Your task to perform on an android device: uninstall "Paramount+ | Peak Streaming" Image 0: 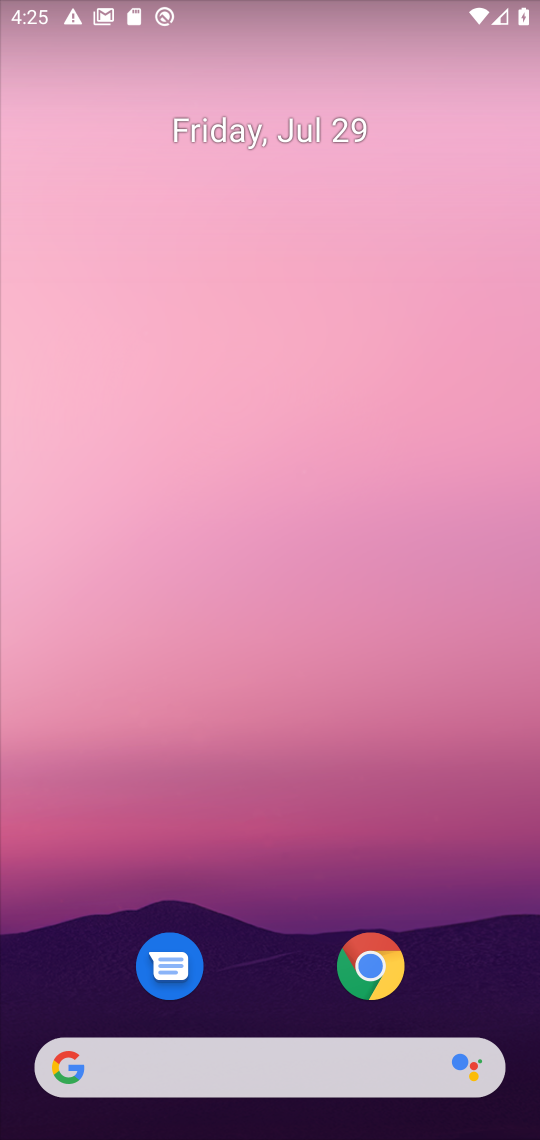
Step 0: drag from (258, 826) to (373, 11)
Your task to perform on an android device: uninstall "Paramount+ | Peak Streaming" Image 1: 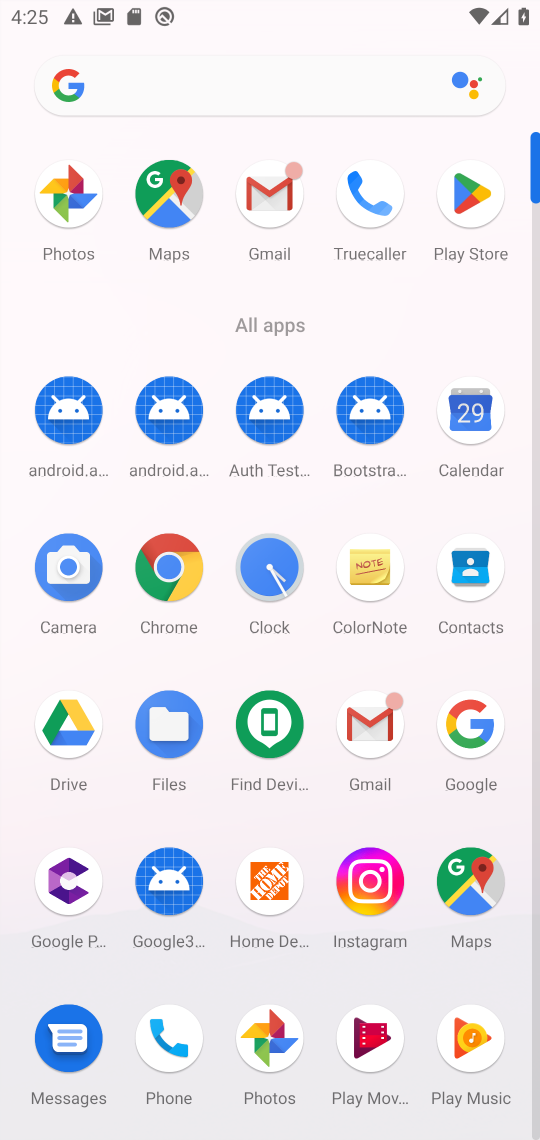
Step 1: click (473, 189)
Your task to perform on an android device: uninstall "Paramount+ | Peak Streaming" Image 2: 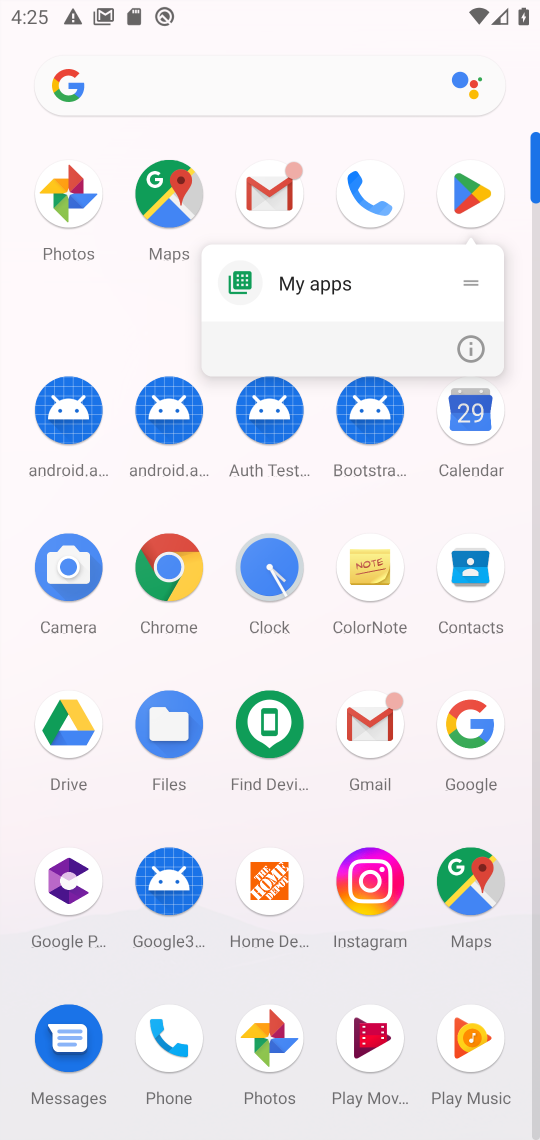
Step 2: click (472, 185)
Your task to perform on an android device: uninstall "Paramount+ | Peak Streaming" Image 3: 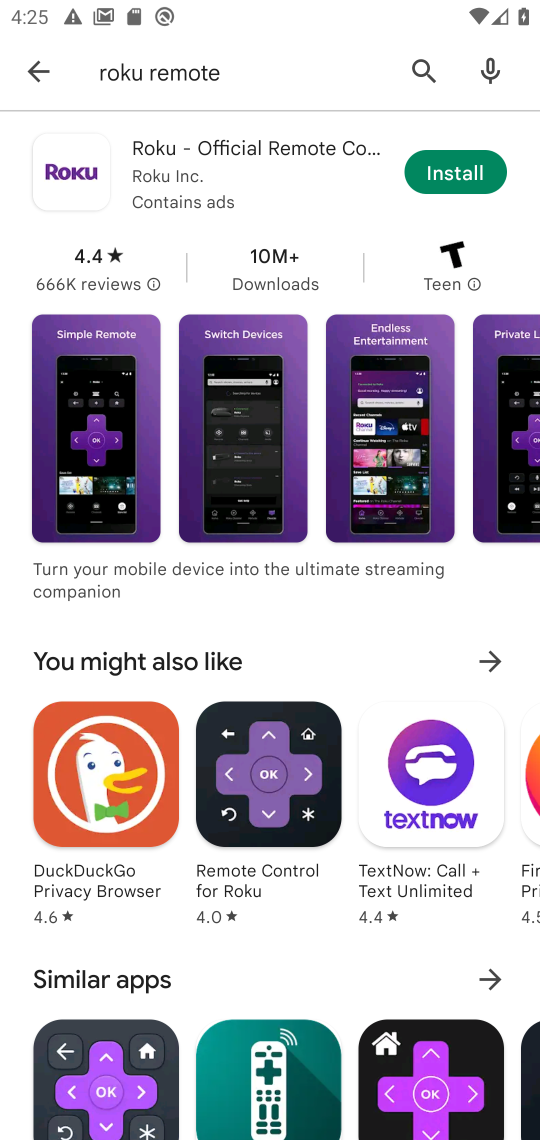
Step 3: click (250, 67)
Your task to perform on an android device: uninstall "Paramount+ | Peak Streaming" Image 4: 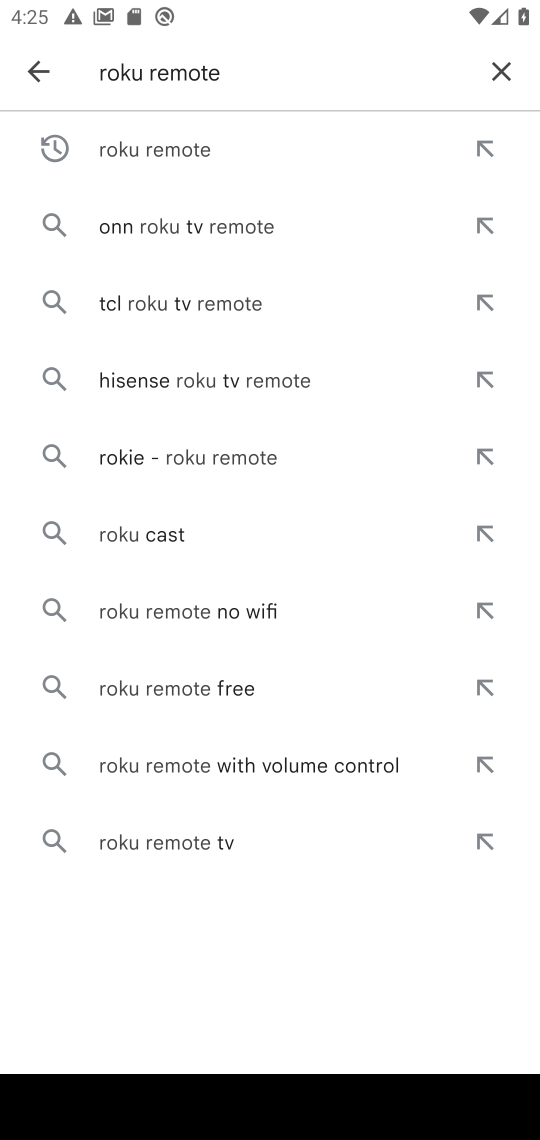
Step 4: click (496, 67)
Your task to perform on an android device: uninstall "Paramount+ | Peak Streaming" Image 5: 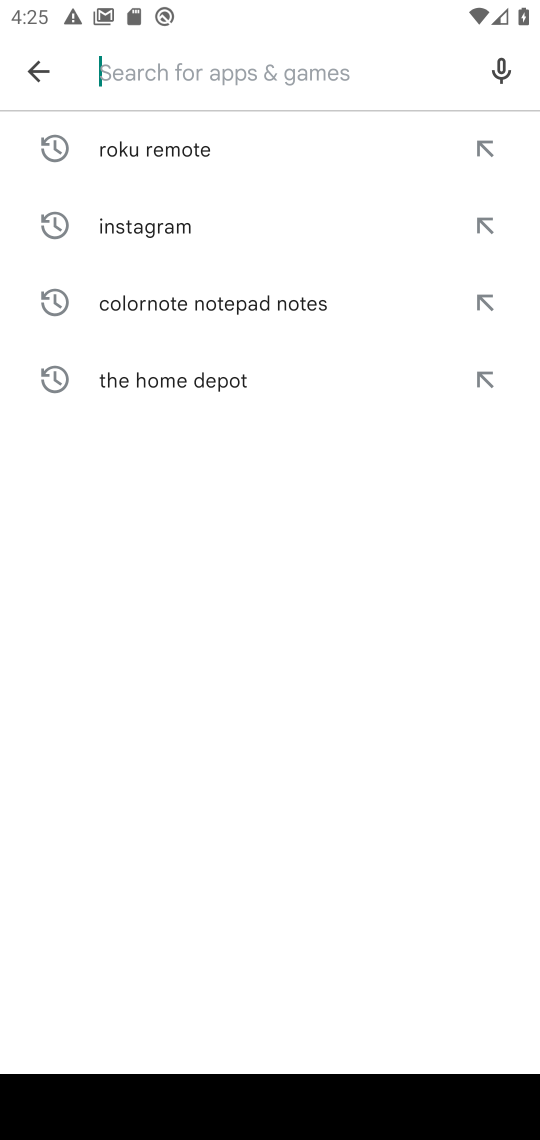
Step 5: type "Paramount+"
Your task to perform on an android device: uninstall "Paramount+ | Peak Streaming" Image 6: 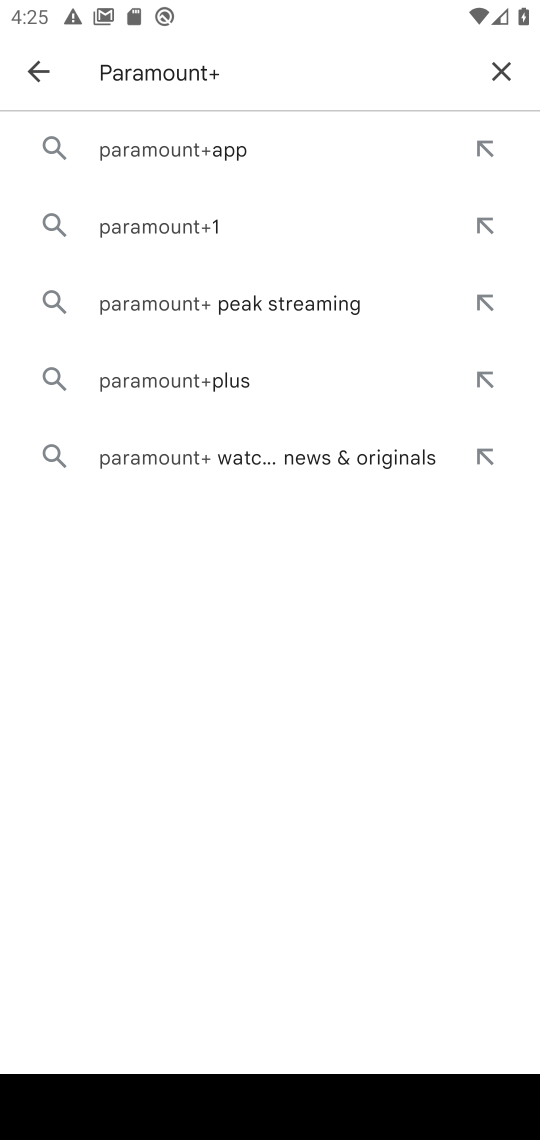
Step 6: click (196, 150)
Your task to perform on an android device: uninstall "Paramount+ | Peak Streaming" Image 7: 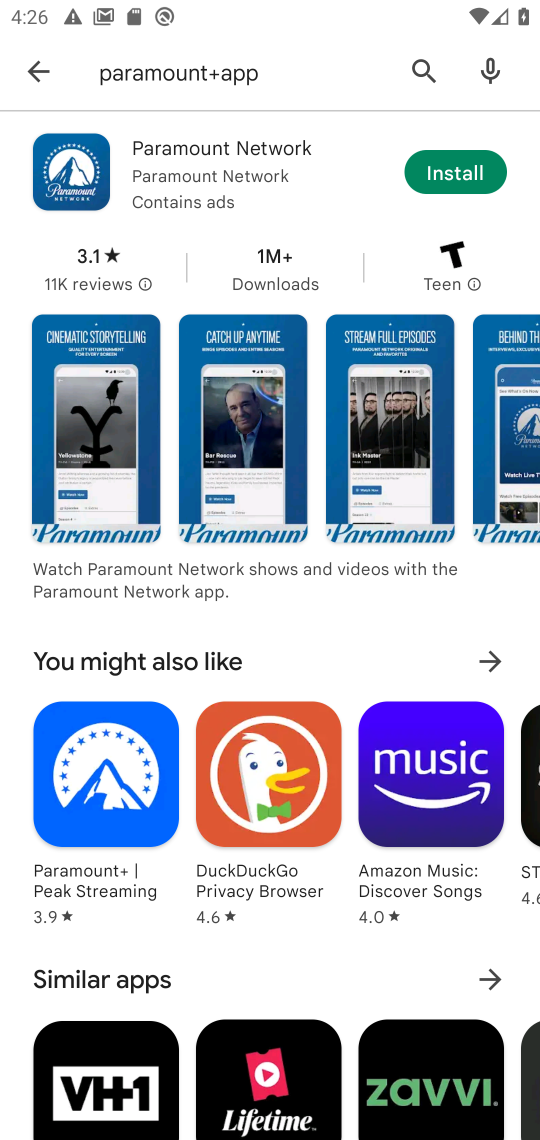
Step 7: task complete